Your task to perform on an android device: snooze an email in the gmail app Image 0: 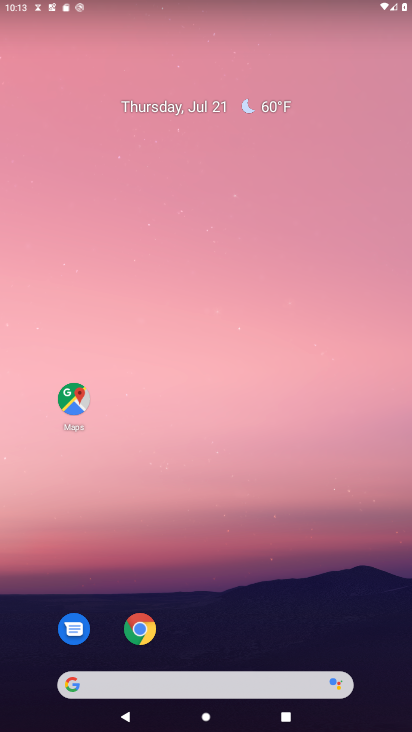
Step 0: drag from (202, 613) to (227, 160)
Your task to perform on an android device: snooze an email in the gmail app Image 1: 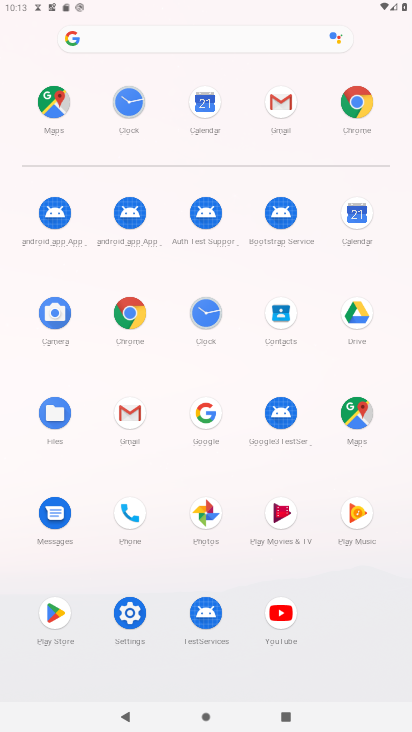
Step 1: click (143, 400)
Your task to perform on an android device: snooze an email in the gmail app Image 2: 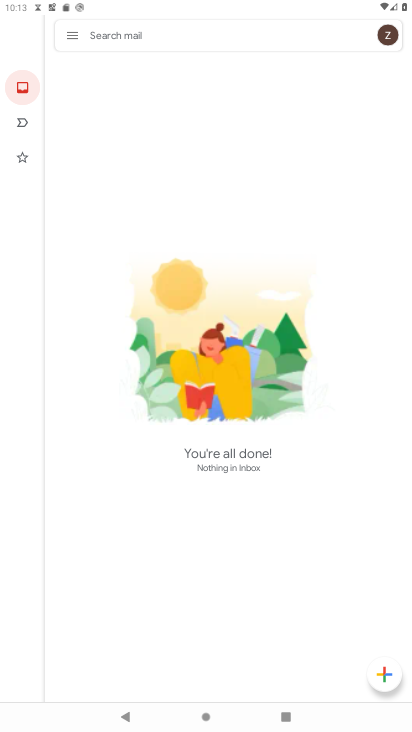
Step 2: click (69, 29)
Your task to perform on an android device: snooze an email in the gmail app Image 3: 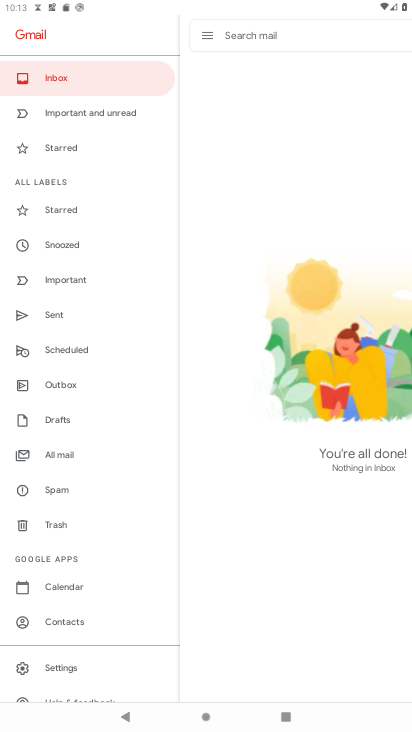
Step 3: click (76, 251)
Your task to perform on an android device: snooze an email in the gmail app Image 4: 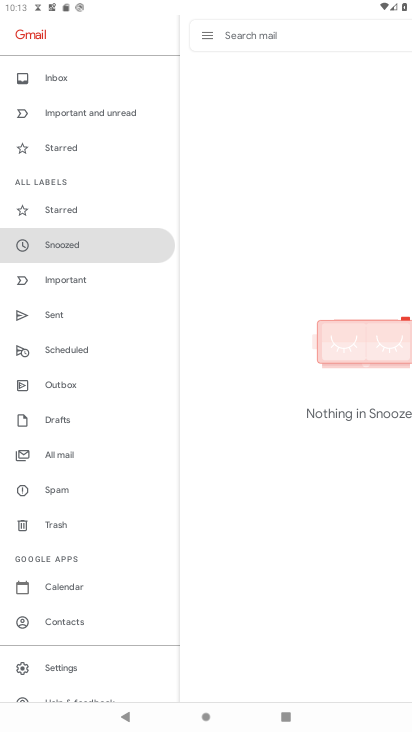
Step 4: task complete